Your task to perform on an android device: Open calendar and show me the first week of next month Image 0: 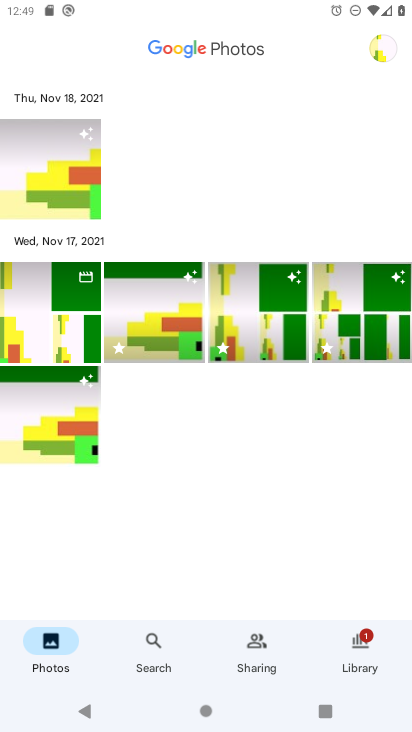
Step 0: press home button
Your task to perform on an android device: Open calendar and show me the first week of next month Image 1: 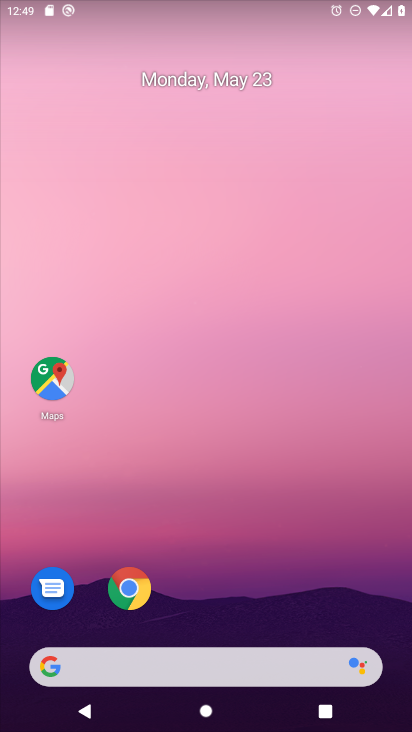
Step 1: drag from (258, 696) to (169, 273)
Your task to perform on an android device: Open calendar and show me the first week of next month Image 2: 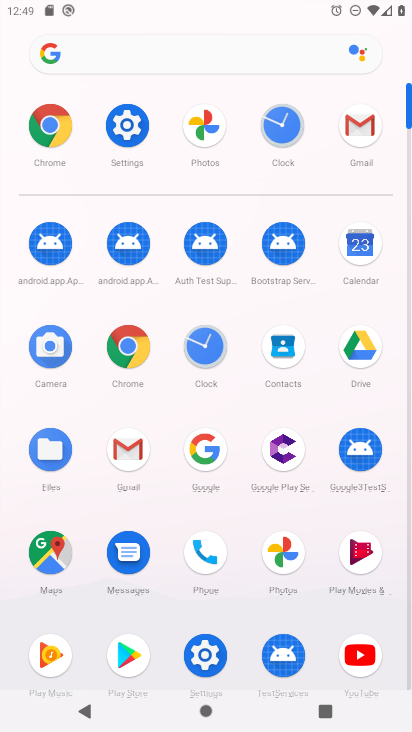
Step 2: click (204, 647)
Your task to perform on an android device: Open calendar and show me the first week of next month Image 3: 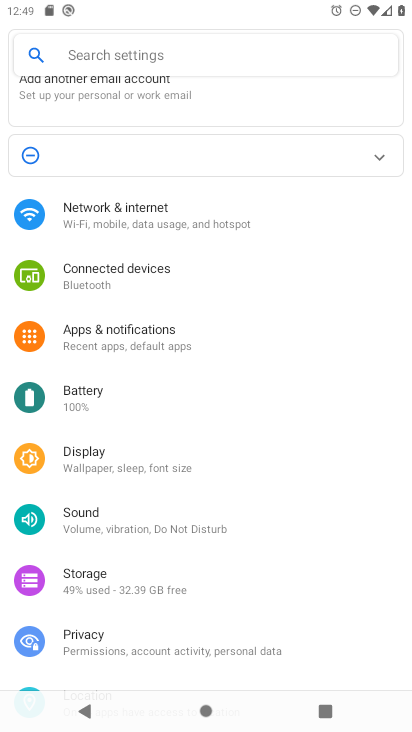
Step 3: press home button
Your task to perform on an android device: Open calendar and show me the first week of next month Image 4: 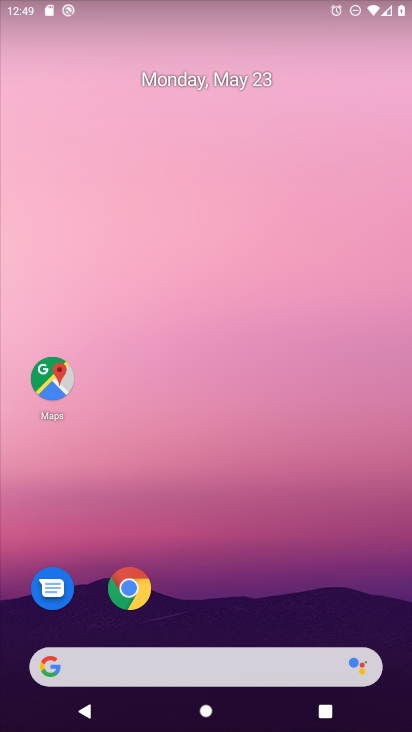
Step 4: drag from (233, 682) to (220, 0)
Your task to perform on an android device: Open calendar and show me the first week of next month Image 5: 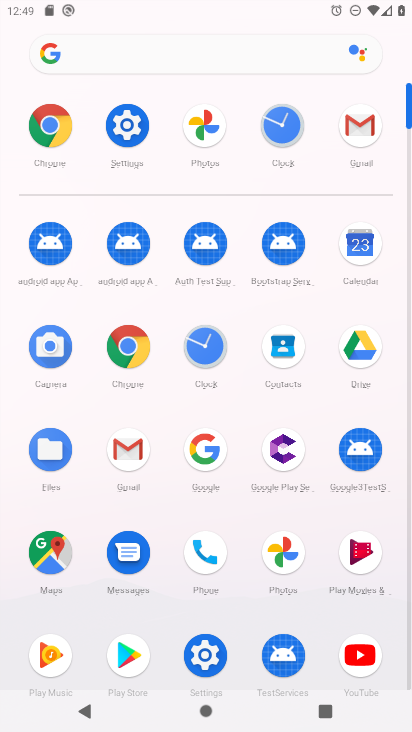
Step 5: click (363, 238)
Your task to perform on an android device: Open calendar and show me the first week of next month Image 6: 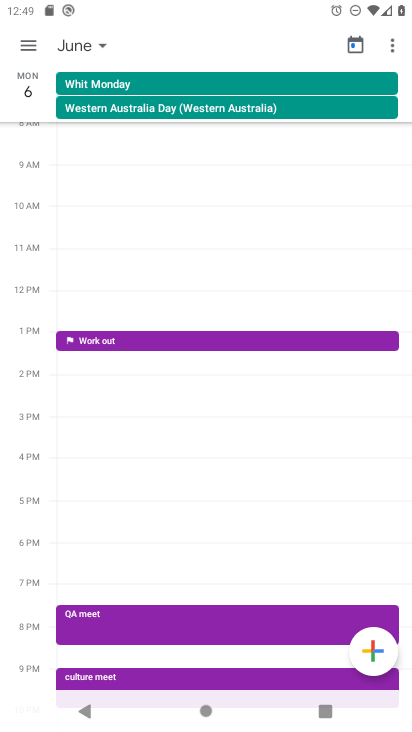
Step 6: click (23, 44)
Your task to perform on an android device: Open calendar and show me the first week of next month Image 7: 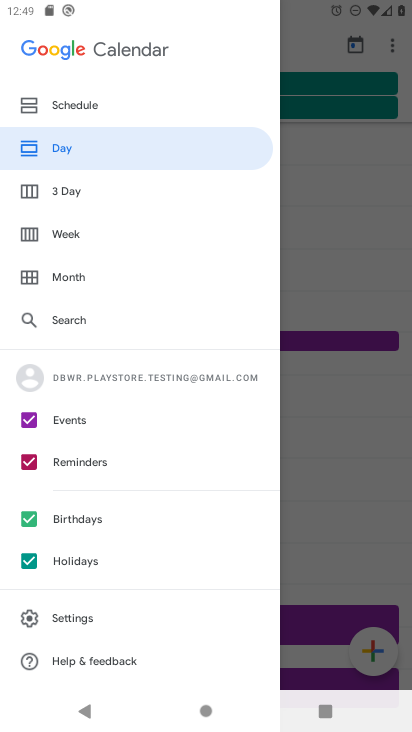
Step 7: click (49, 279)
Your task to perform on an android device: Open calendar and show me the first week of next month Image 8: 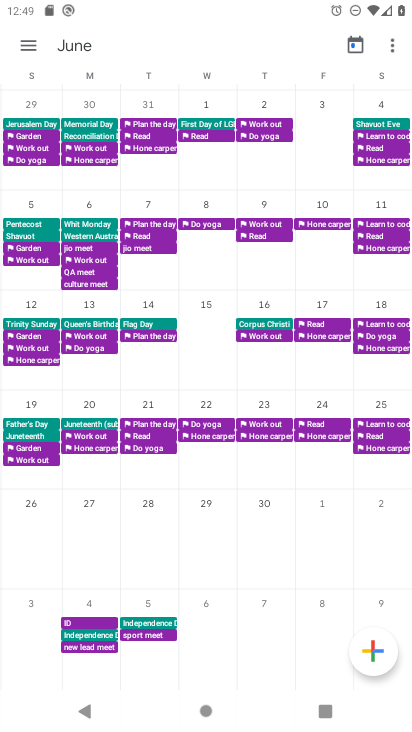
Step 8: click (193, 116)
Your task to perform on an android device: Open calendar and show me the first week of next month Image 9: 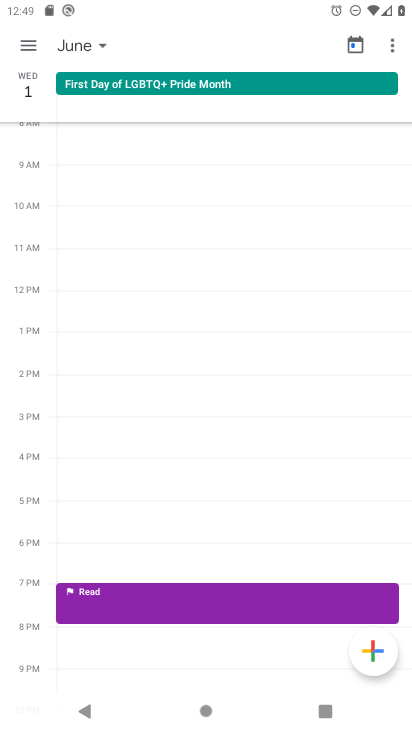
Step 9: task complete